Your task to perform on an android device: Go to sound settings Image 0: 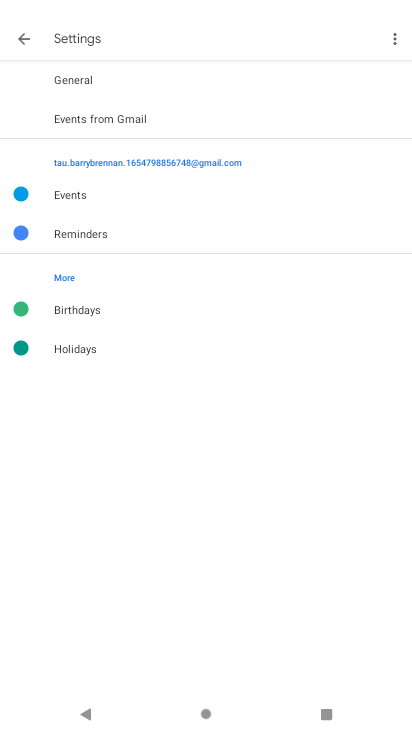
Step 0: press back button
Your task to perform on an android device: Go to sound settings Image 1: 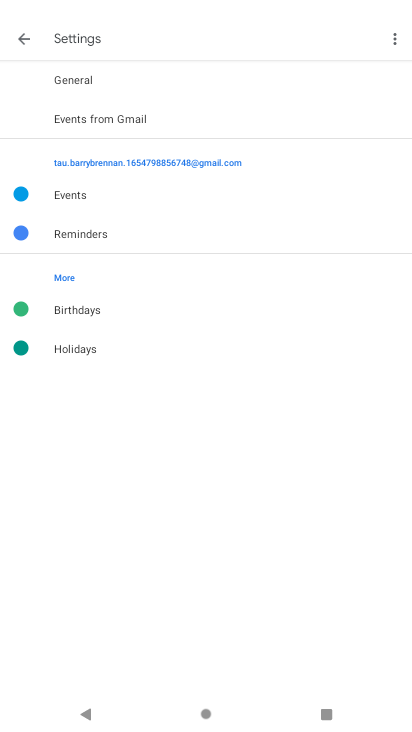
Step 1: click (23, 37)
Your task to perform on an android device: Go to sound settings Image 2: 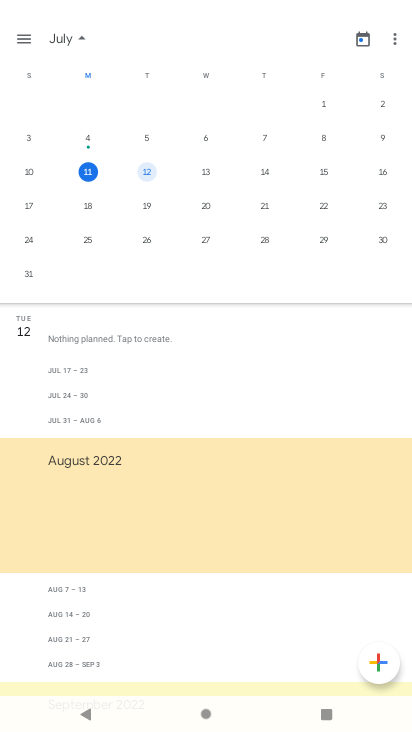
Step 2: press home button
Your task to perform on an android device: Go to sound settings Image 3: 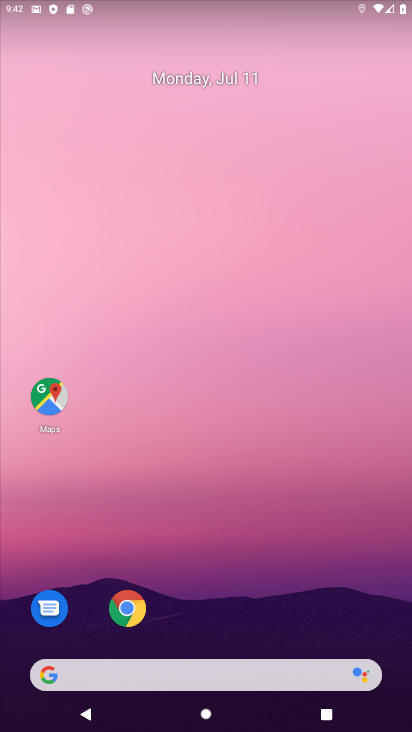
Step 3: drag from (291, 706) to (249, 95)
Your task to perform on an android device: Go to sound settings Image 4: 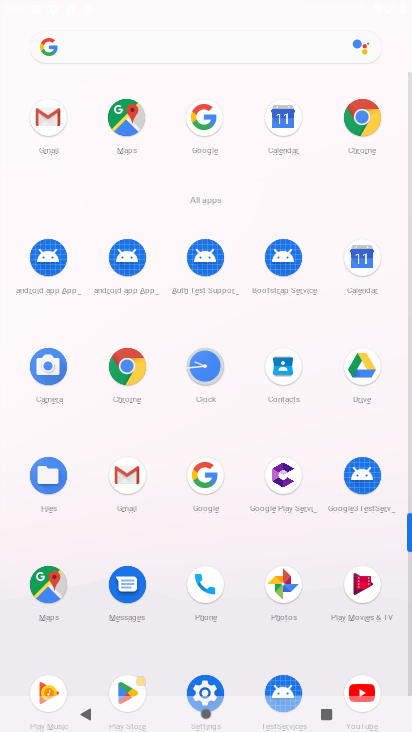
Step 4: click (199, 685)
Your task to perform on an android device: Go to sound settings Image 5: 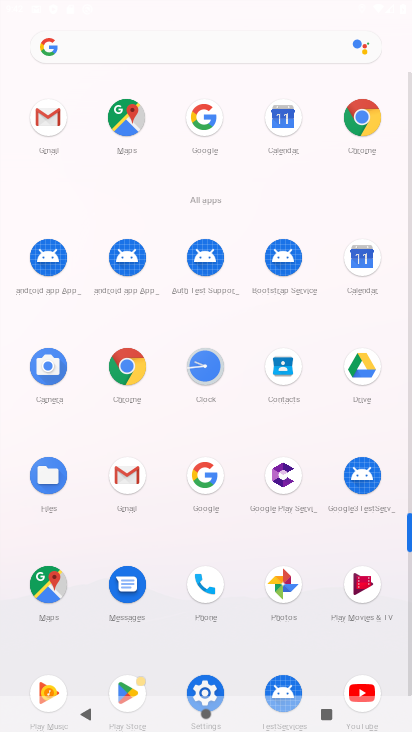
Step 5: click (199, 685)
Your task to perform on an android device: Go to sound settings Image 6: 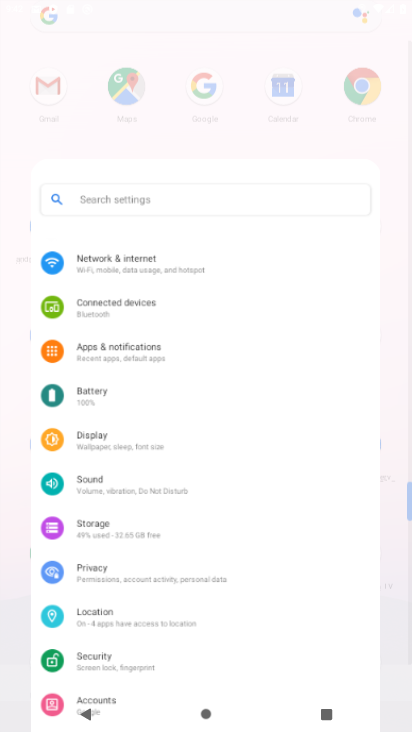
Step 6: click (200, 686)
Your task to perform on an android device: Go to sound settings Image 7: 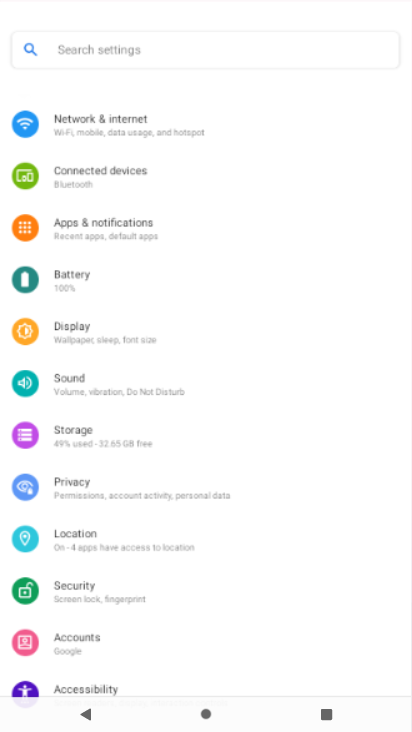
Step 7: click (199, 688)
Your task to perform on an android device: Go to sound settings Image 8: 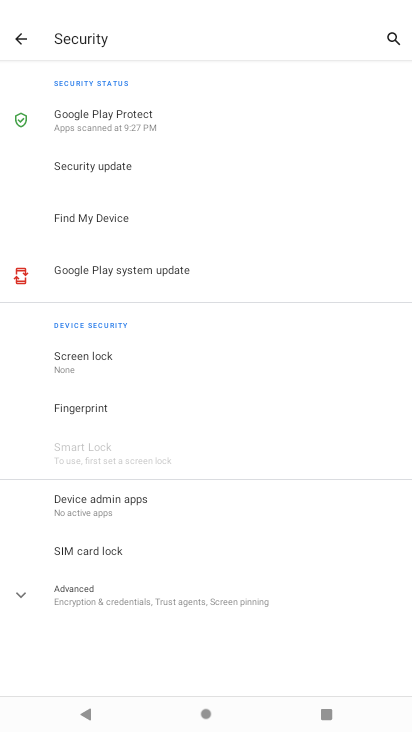
Step 8: click (21, 38)
Your task to perform on an android device: Go to sound settings Image 9: 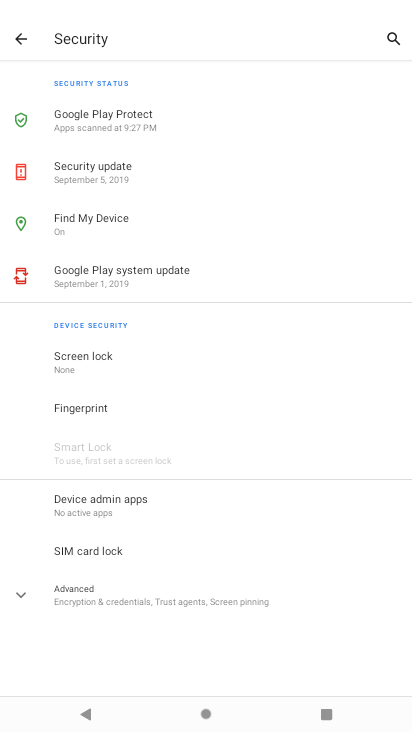
Step 9: click (22, 41)
Your task to perform on an android device: Go to sound settings Image 10: 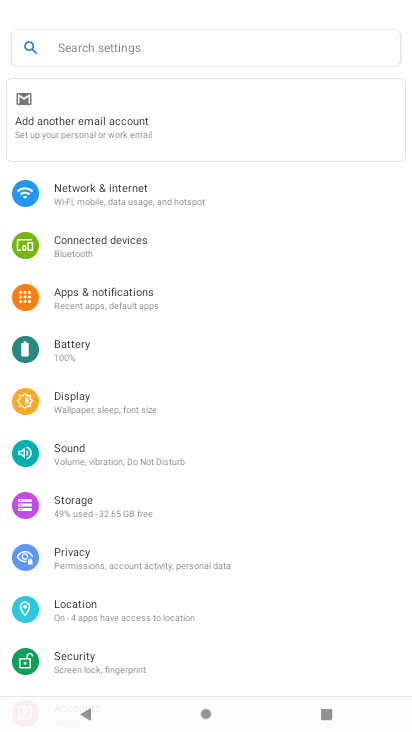
Step 10: click (62, 399)
Your task to perform on an android device: Go to sound settings Image 11: 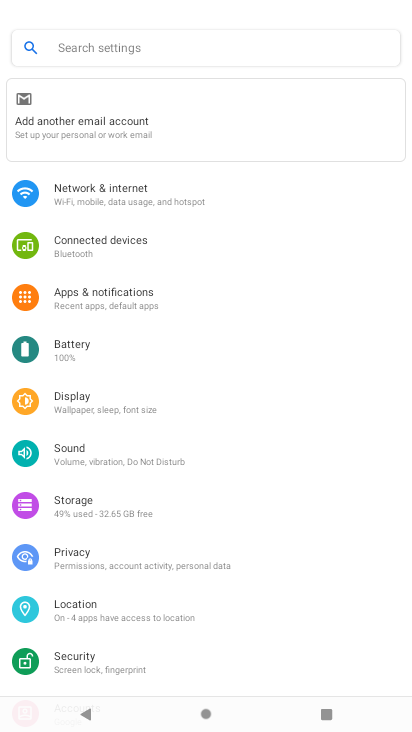
Step 11: click (62, 399)
Your task to perform on an android device: Go to sound settings Image 12: 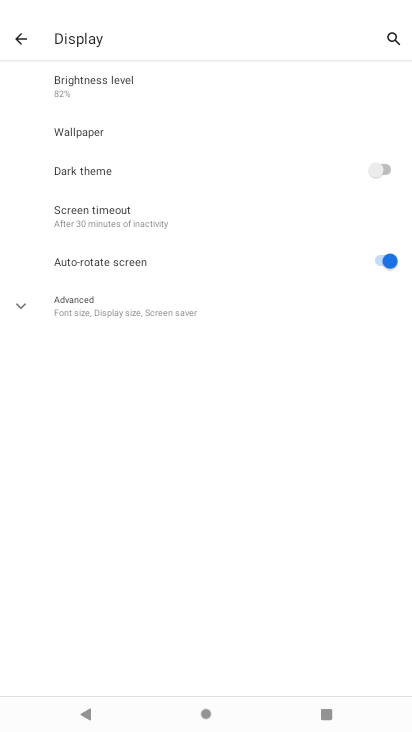
Step 12: click (22, 41)
Your task to perform on an android device: Go to sound settings Image 13: 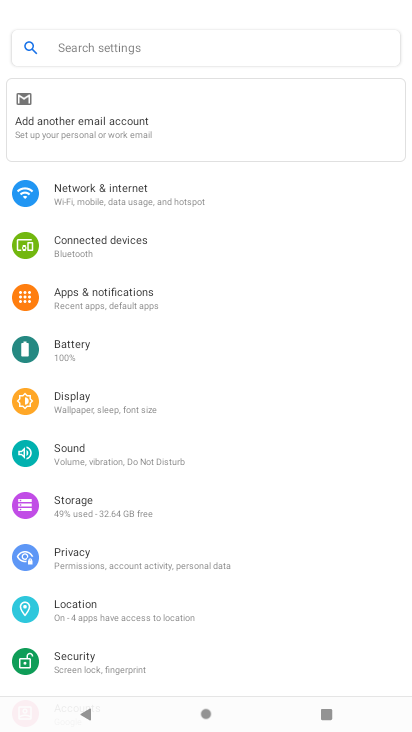
Step 13: click (95, 452)
Your task to perform on an android device: Go to sound settings Image 14: 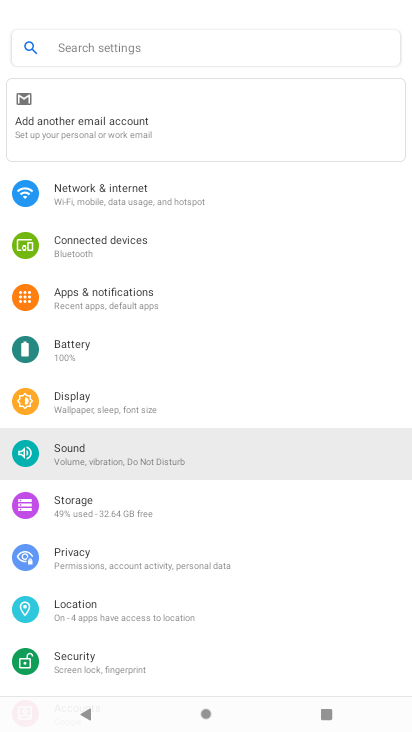
Step 14: click (94, 453)
Your task to perform on an android device: Go to sound settings Image 15: 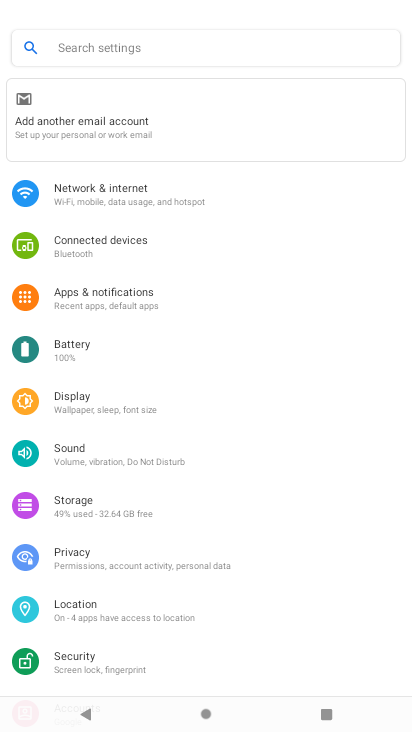
Step 15: click (91, 451)
Your task to perform on an android device: Go to sound settings Image 16: 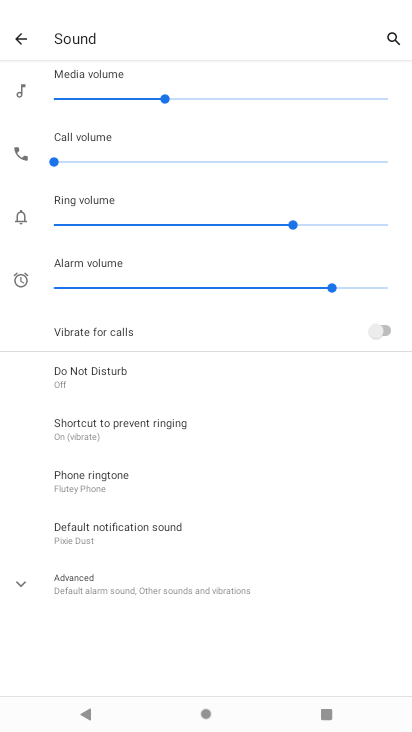
Step 16: task complete